Your task to perform on an android device: What is the recent news? Image 0: 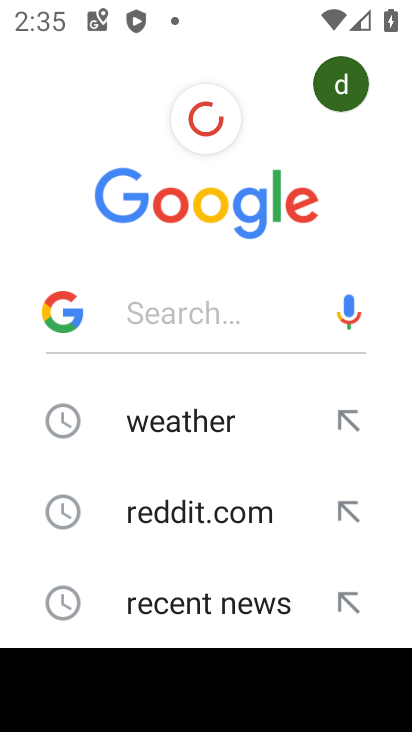
Step 0: press back button
Your task to perform on an android device: What is the recent news? Image 1: 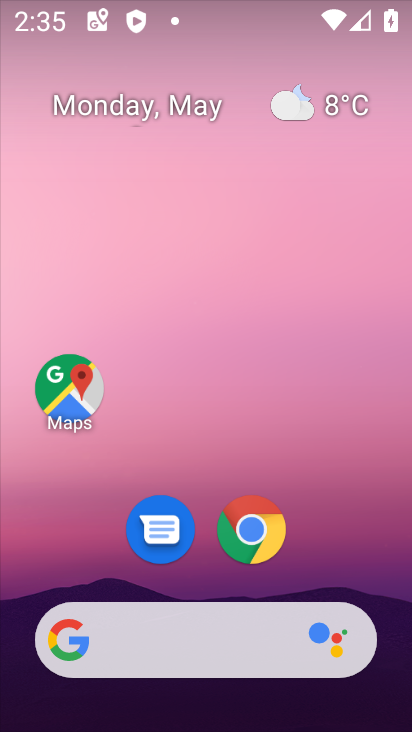
Step 1: task complete